Your task to perform on an android device: visit the assistant section in the google photos Image 0: 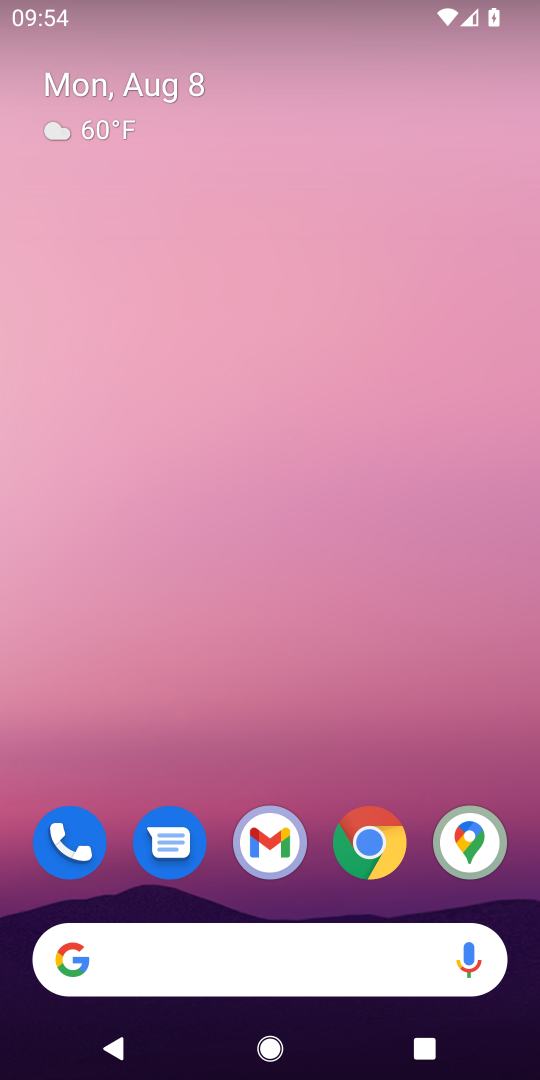
Step 0: drag from (315, 744) to (315, 48)
Your task to perform on an android device: visit the assistant section in the google photos Image 1: 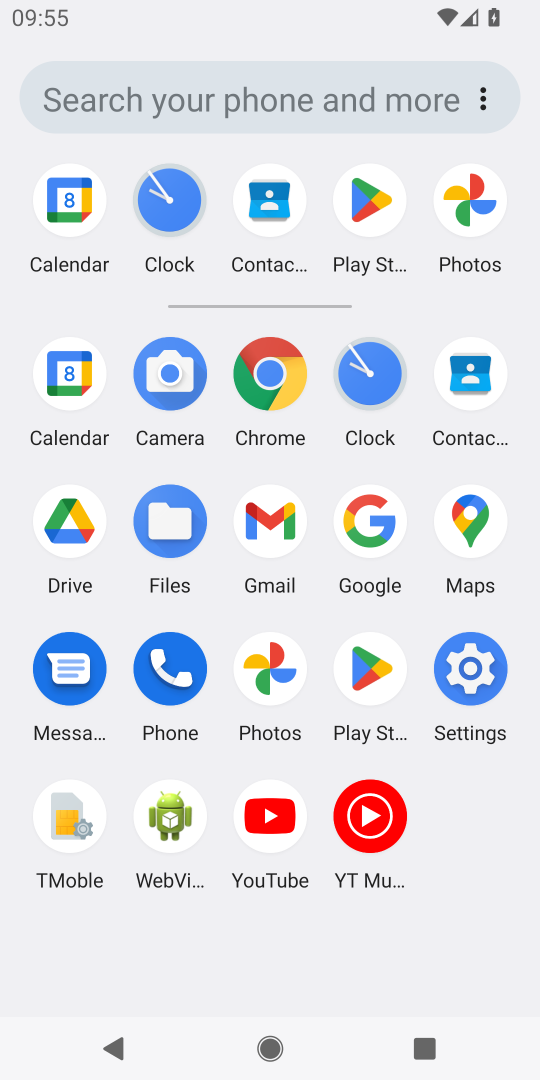
Step 1: click (273, 662)
Your task to perform on an android device: visit the assistant section in the google photos Image 2: 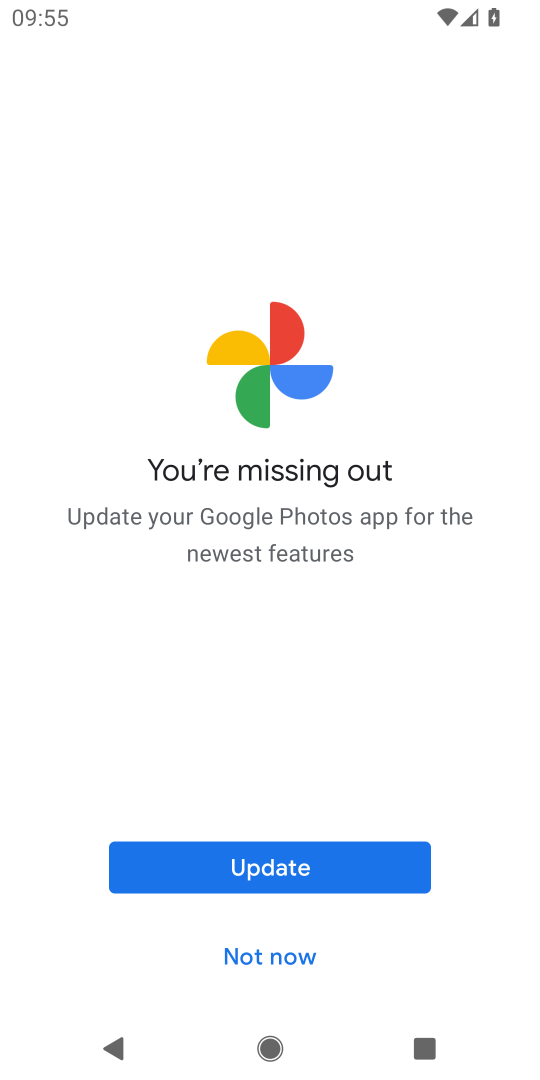
Step 2: click (230, 852)
Your task to perform on an android device: visit the assistant section in the google photos Image 3: 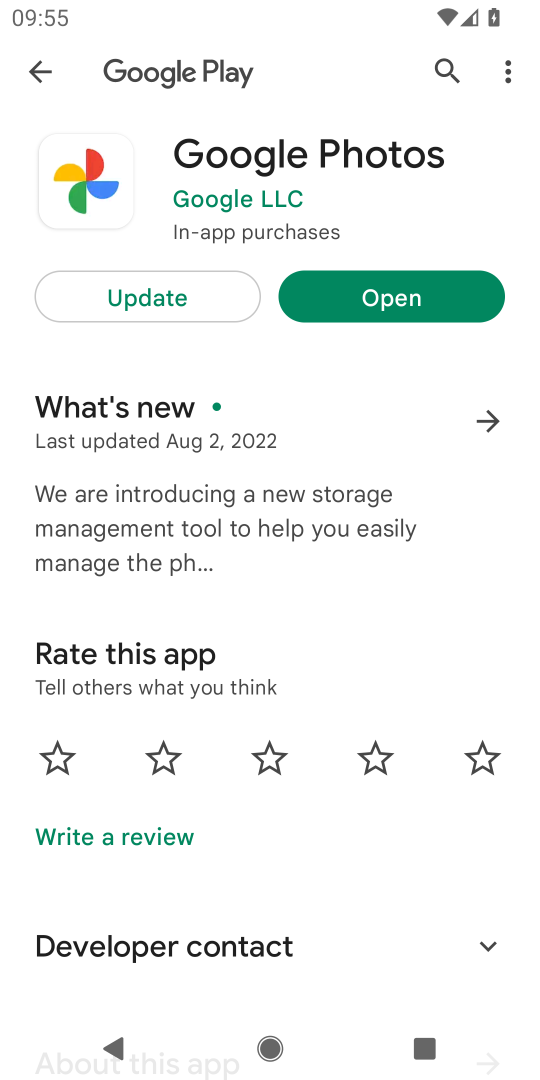
Step 3: click (167, 284)
Your task to perform on an android device: visit the assistant section in the google photos Image 4: 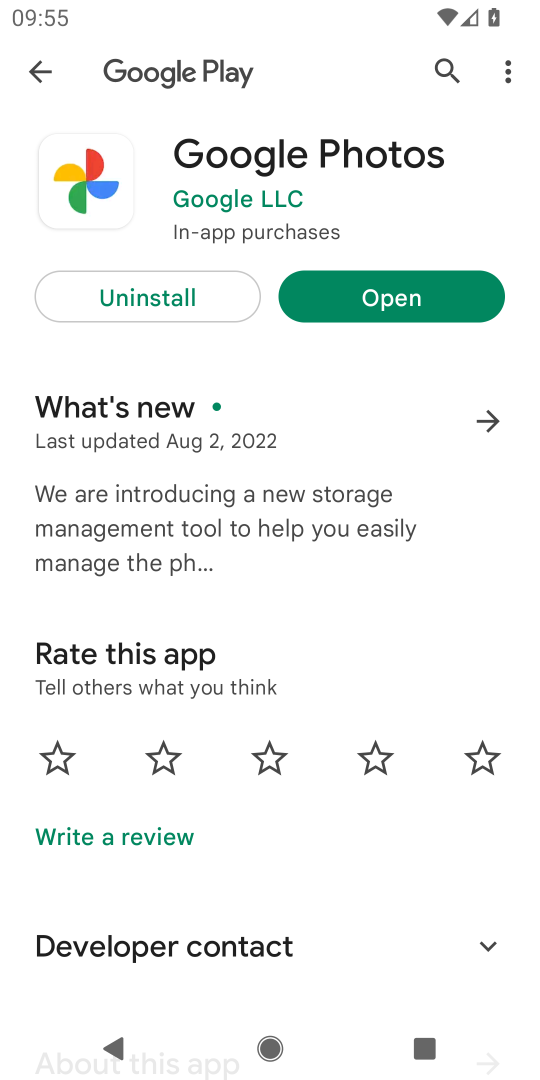
Step 4: click (402, 309)
Your task to perform on an android device: visit the assistant section in the google photos Image 5: 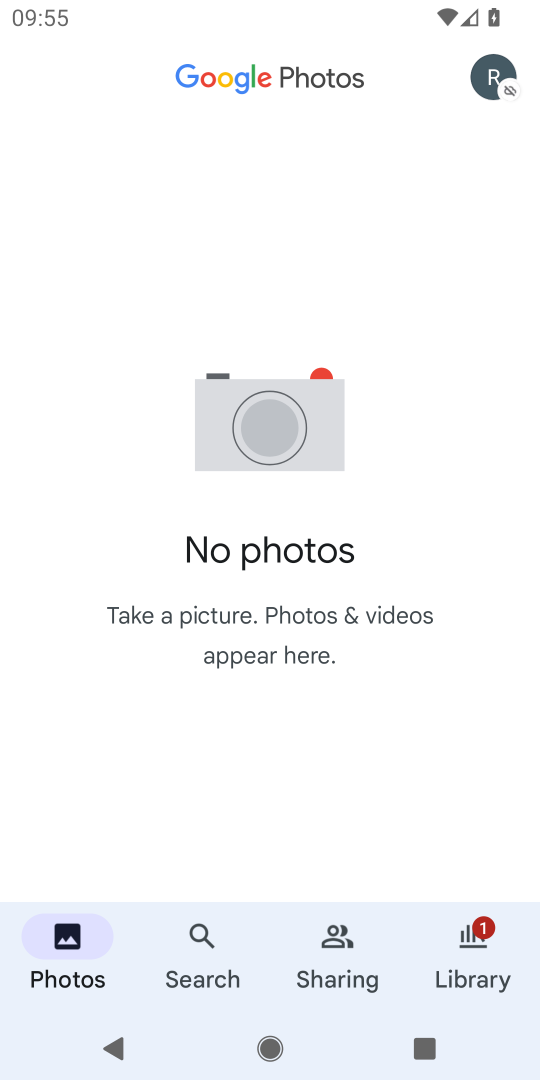
Step 5: click (209, 940)
Your task to perform on an android device: visit the assistant section in the google photos Image 6: 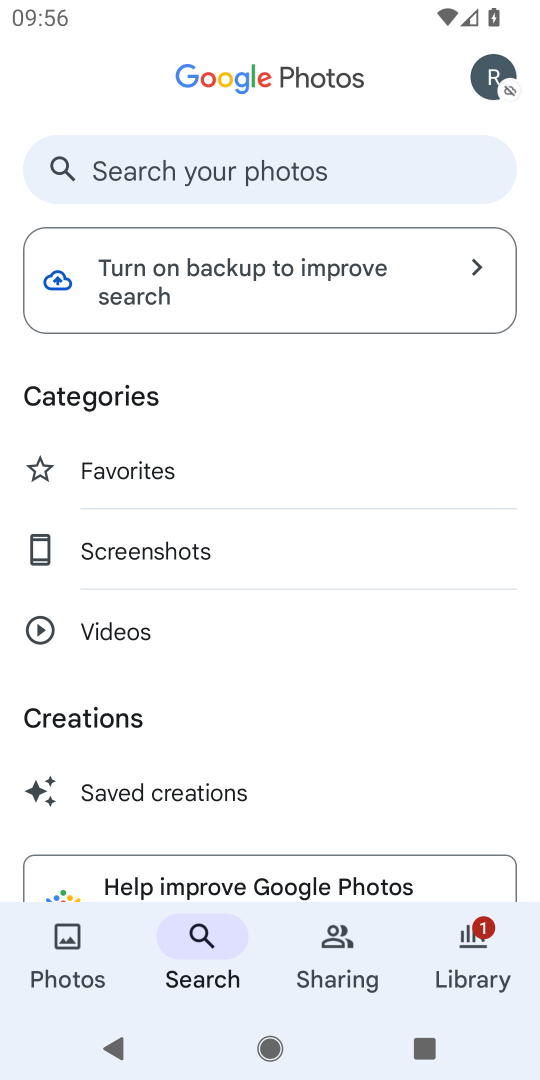
Step 6: task complete